Your task to perform on an android device: Open notification settings Image 0: 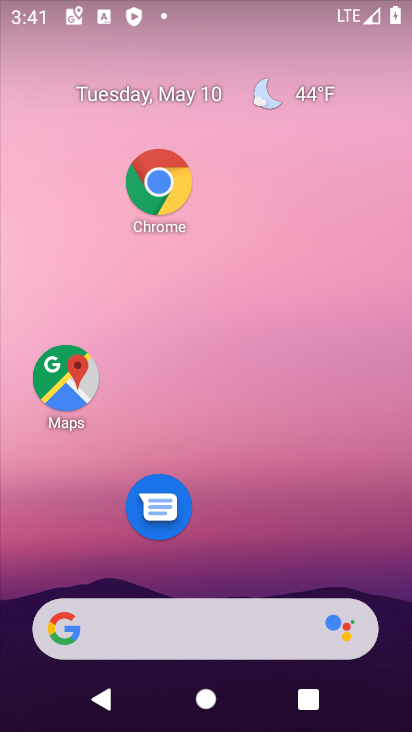
Step 0: drag from (240, 537) to (317, 67)
Your task to perform on an android device: Open notification settings Image 1: 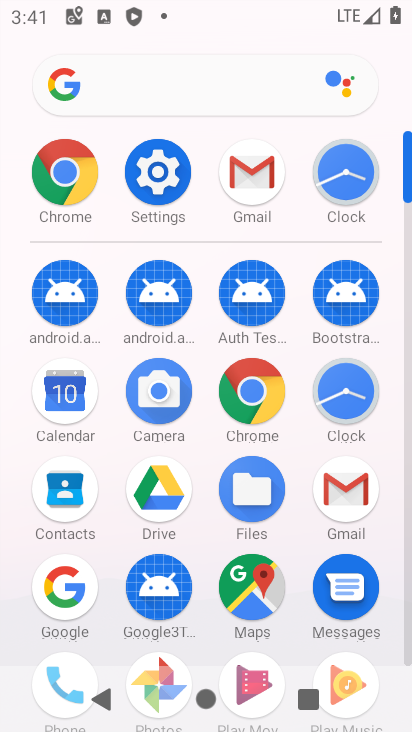
Step 1: click (184, 167)
Your task to perform on an android device: Open notification settings Image 2: 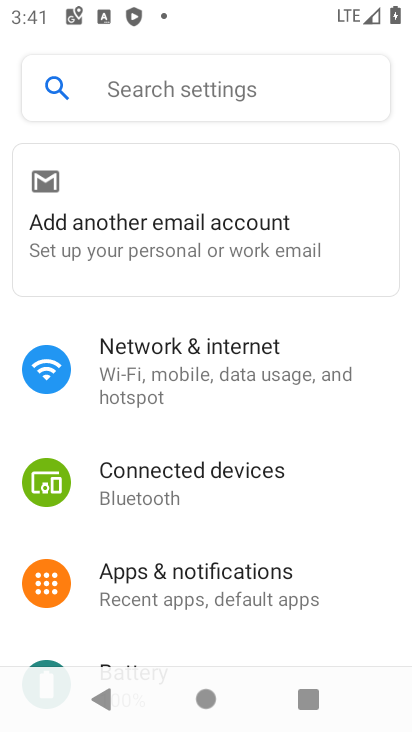
Step 2: click (244, 609)
Your task to perform on an android device: Open notification settings Image 3: 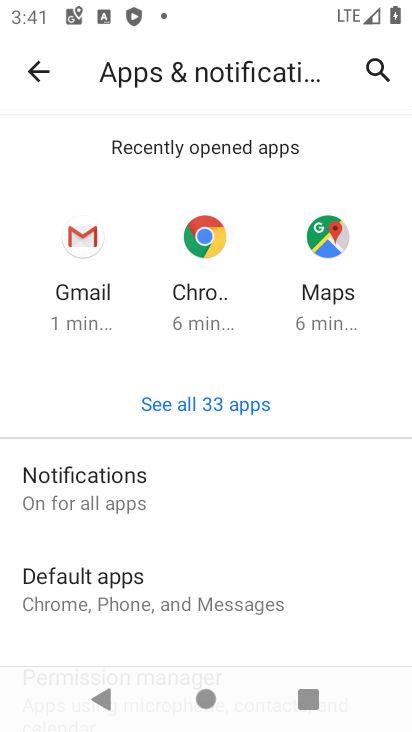
Step 3: drag from (242, 577) to (212, 462)
Your task to perform on an android device: Open notification settings Image 4: 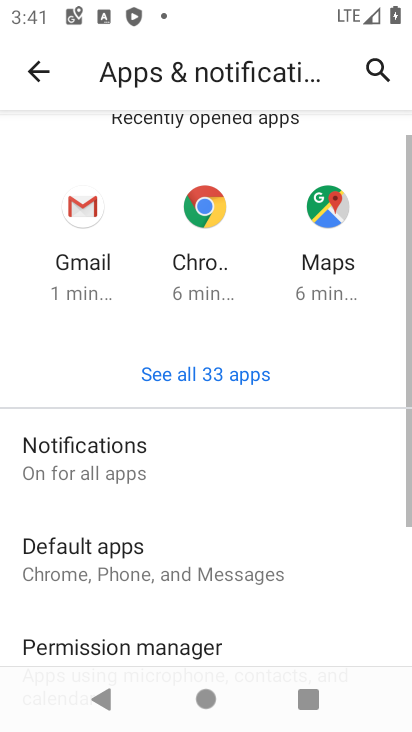
Step 4: click (212, 452)
Your task to perform on an android device: Open notification settings Image 5: 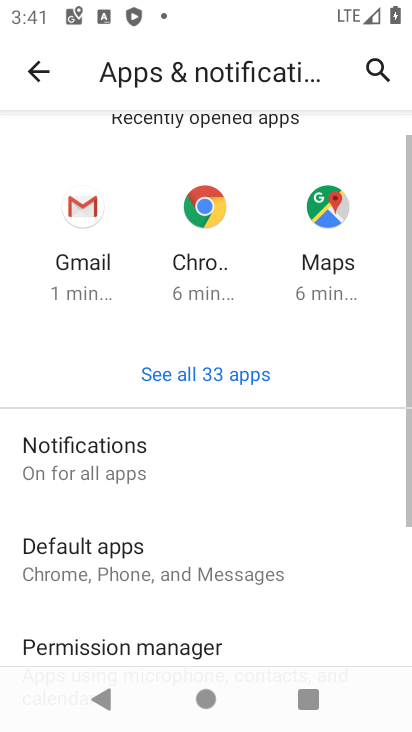
Step 5: click (212, 452)
Your task to perform on an android device: Open notification settings Image 6: 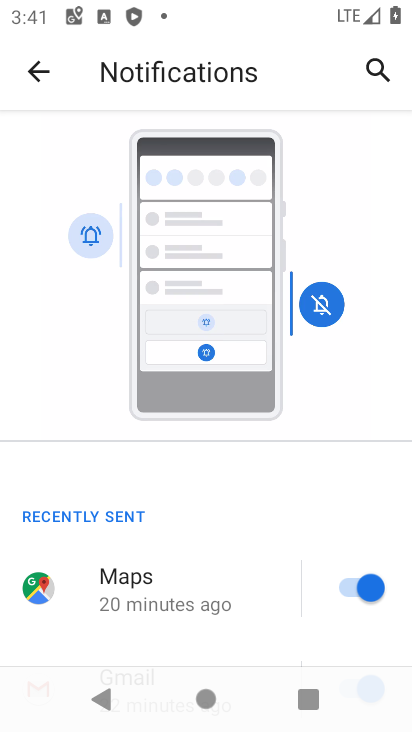
Step 6: task complete